Your task to perform on an android device: Show me popular games on the Play Store Image 0: 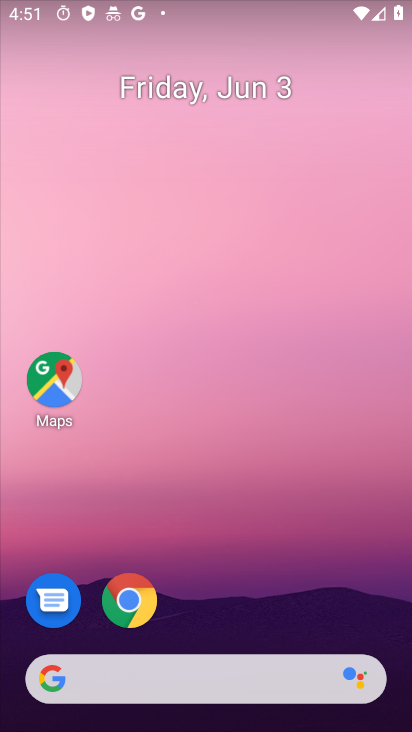
Step 0: click (135, 597)
Your task to perform on an android device: Show me popular games on the Play Store Image 1: 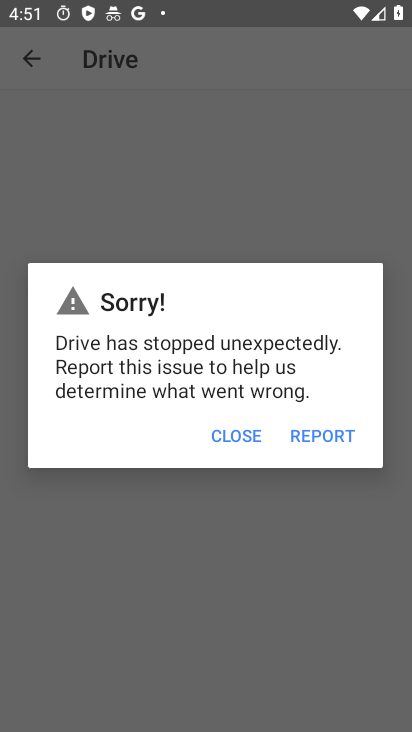
Step 1: press home button
Your task to perform on an android device: Show me popular games on the Play Store Image 2: 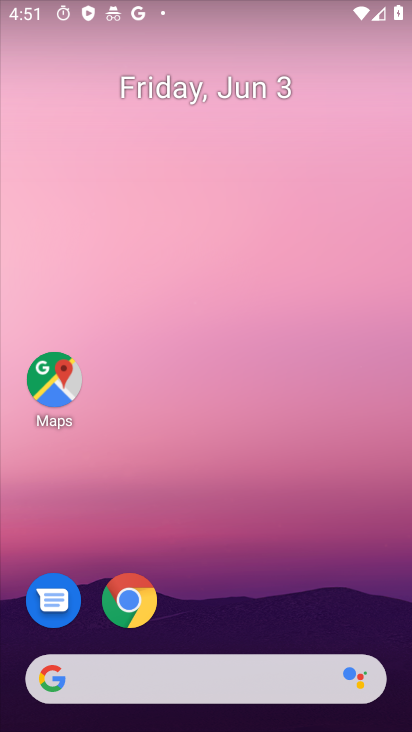
Step 2: drag from (400, 697) to (326, 118)
Your task to perform on an android device: Show me popular games on the Play Store Image 3: 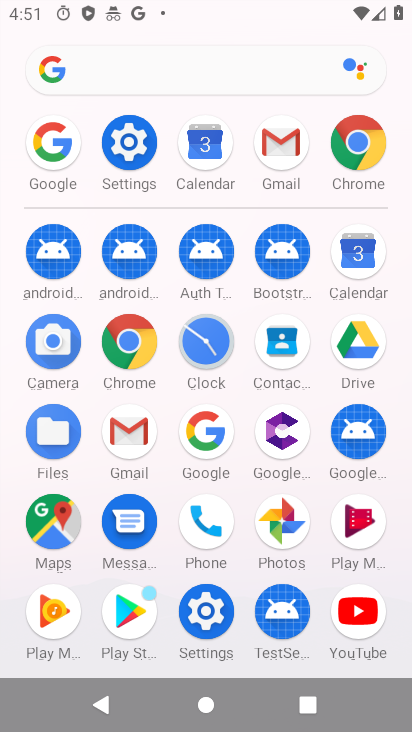
Step 3: click (125, 611)
Your task to perform on an android device: Show me popular games on the Play Store Image 4: 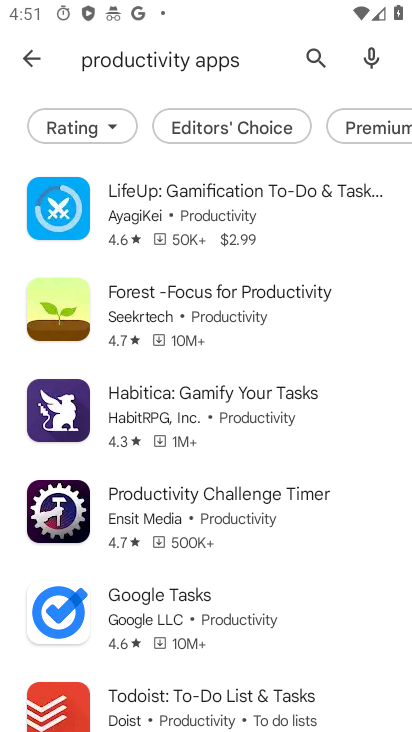
Step 4: click (241, 62)
Your task to perform on an android device: Show me popular games on the Play Store Image 5: 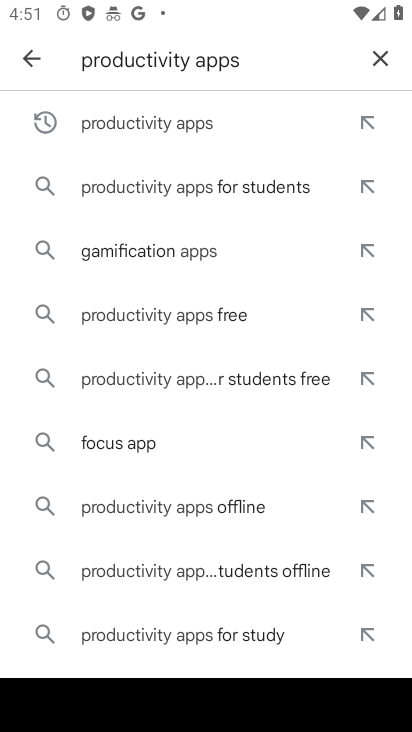
Step 5: click (373, 56)
Your task to perform on an android device: Show me popular games on the Play Store Image 6: 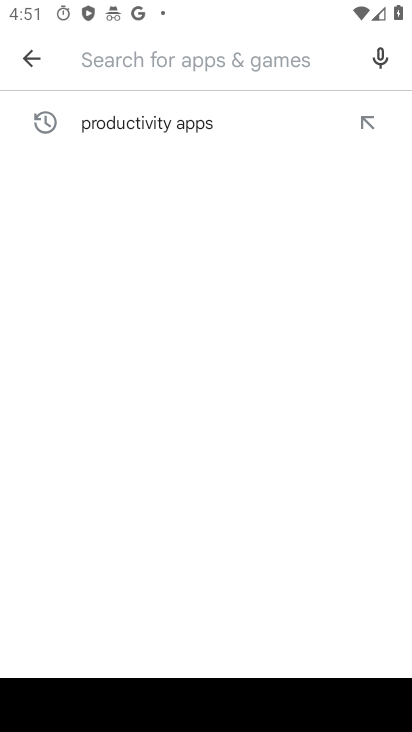
Step 6: type "popular games "
Your task to perform on an android device: Show me popular games on the Play Store Image 7: 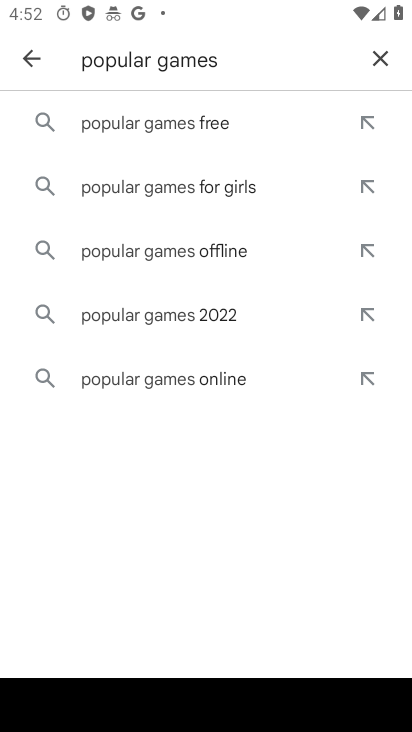
Step 7: click (100, 118)
Your task to perform on an android device: Show me popular games on the Play Store Image 8: 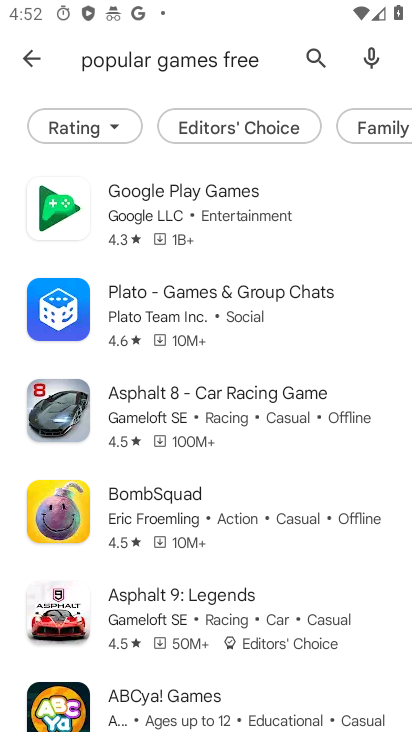
Step 8: task complete